Your task to perform on an android device: Open sound settings Image 0: 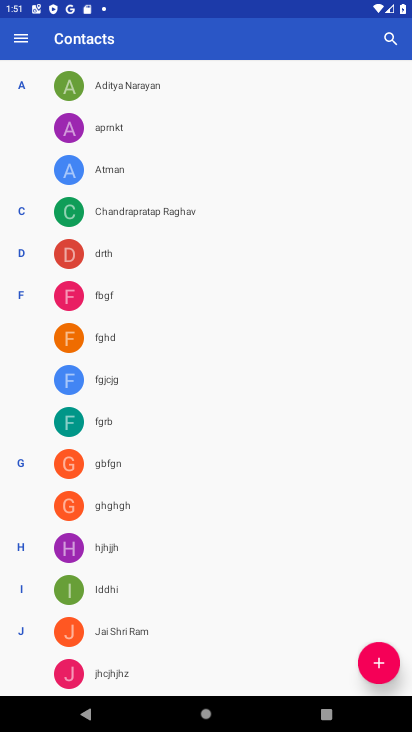
Step 0: press home button
Your task to perform on an android device: Open sound settings Image 1: 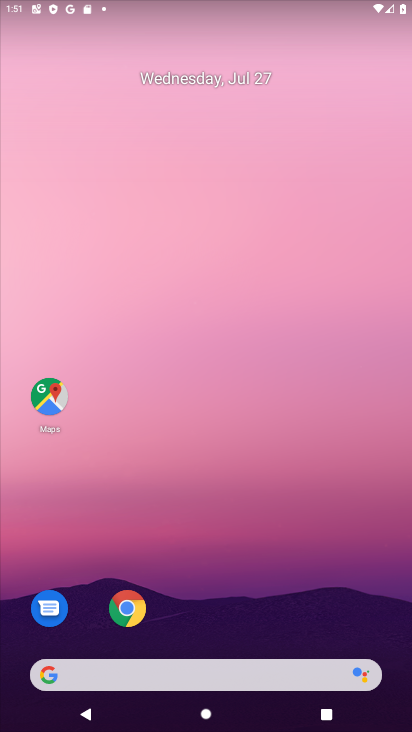
Step 1: drag from (38, 716) to (237, 20)
Your task to perform on an android device: Open sound settings Image 2: 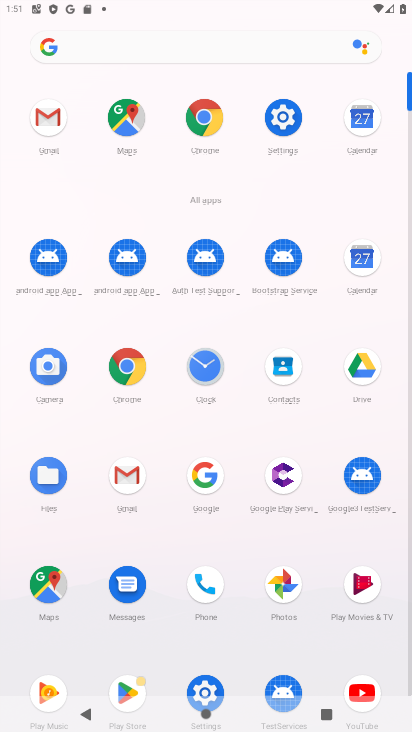
Step 2: click (199, 687)
Your task to perform on an android device: Open sound settings Image 3: 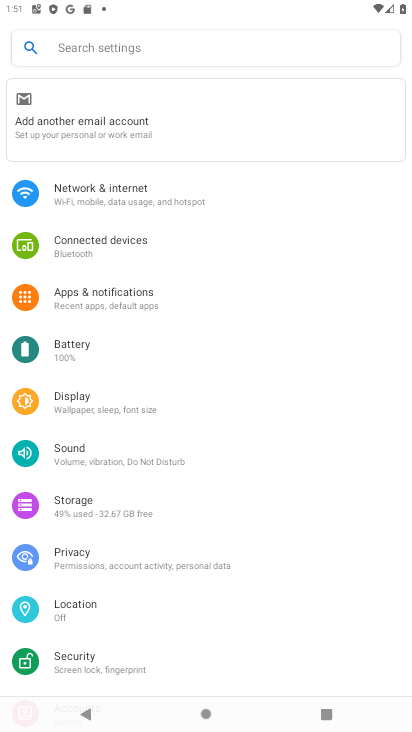
Step 3: click (85, 447)
Your task to perform on an android device: Open sound settings Image 4: 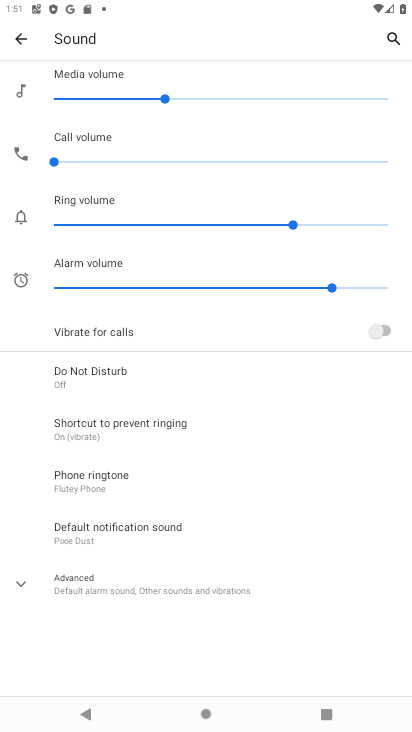
Step 4: task complete